Your task to perform on an android device: turn off data saver in the chrome app Image 0: 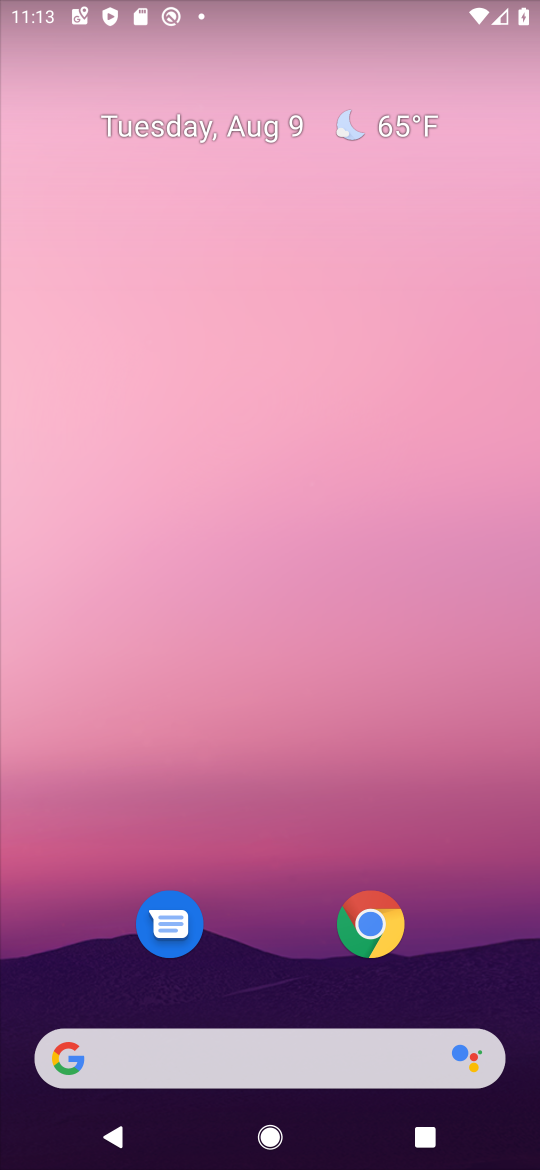
Step 0: drag from (268, 924) to (446, 18)
Your task to perform on an android device: turn off data saver in the chrome app Image 1: 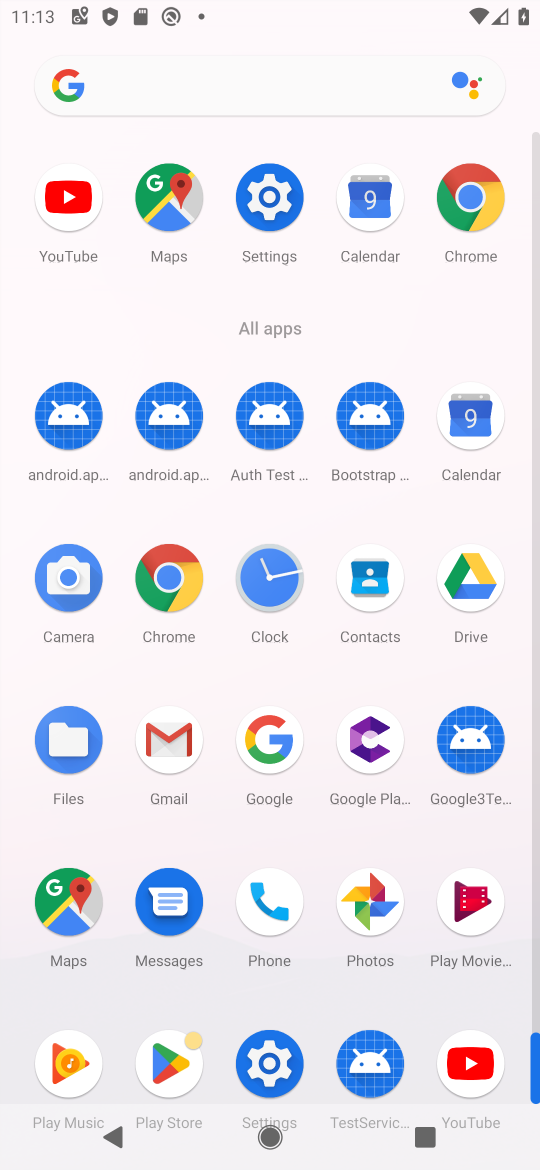
Step 1: click (254, 1055)
Your task to perform on an android device: turn off data saver in the chrome app Image 2: 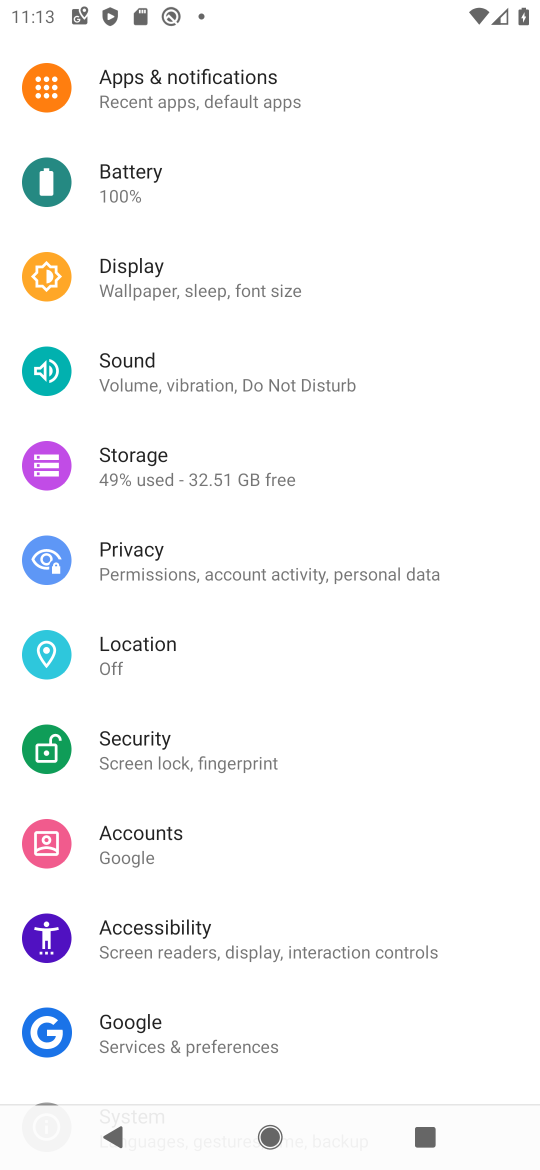
Step 2: press home button
Your task to perform on an android device: turn off data saver in the chrome app Image 3: 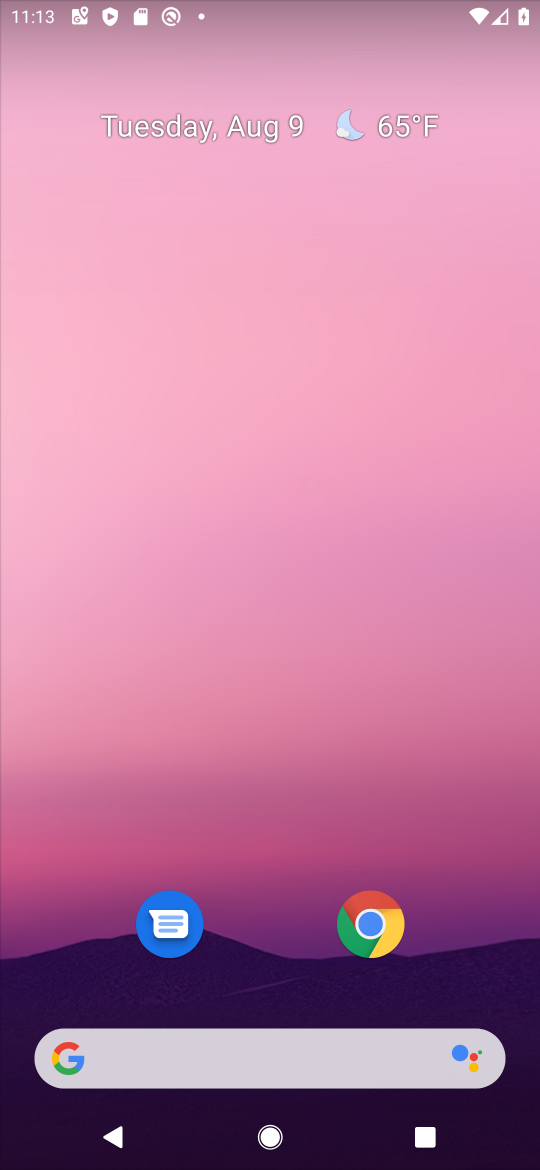
Step 3: click (370, 913)
Your task to perform on an android device: turn off data saver in the chrome app Image 4: 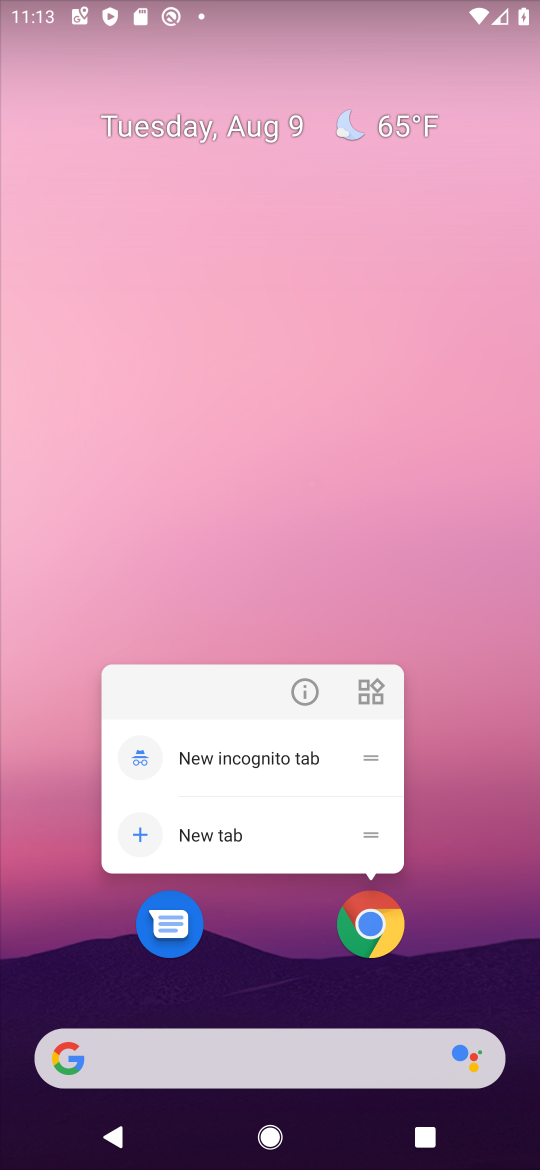
Step 4: click (392, 926)
Your task to perform on an android device: turn off data saver in the chrome app Image 5: 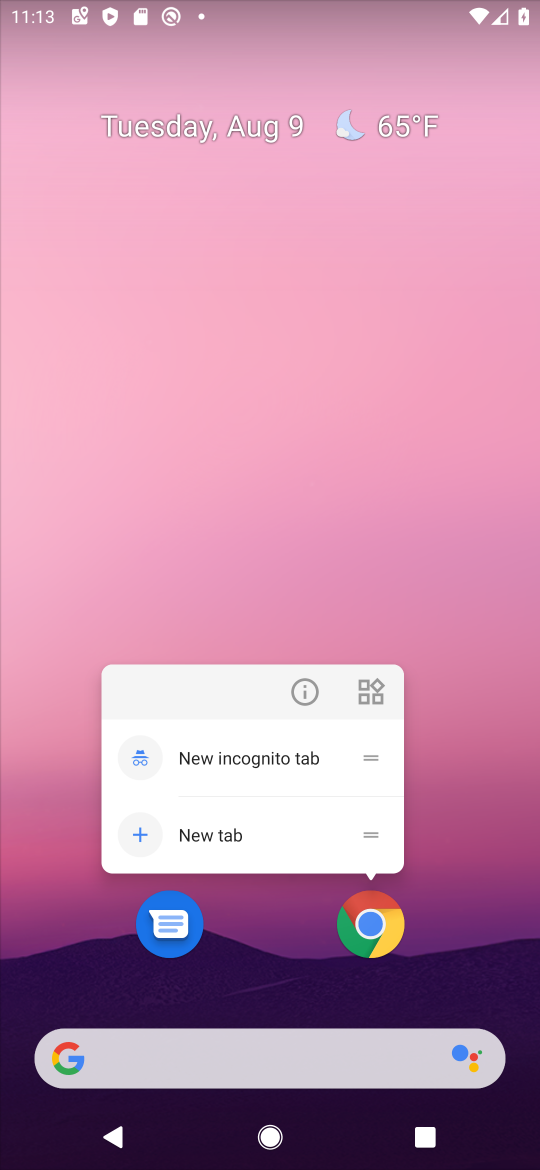
Step 5: click (392, 926)
Your task to perform on an android device: turn off data saver in the chrome app Image 6: 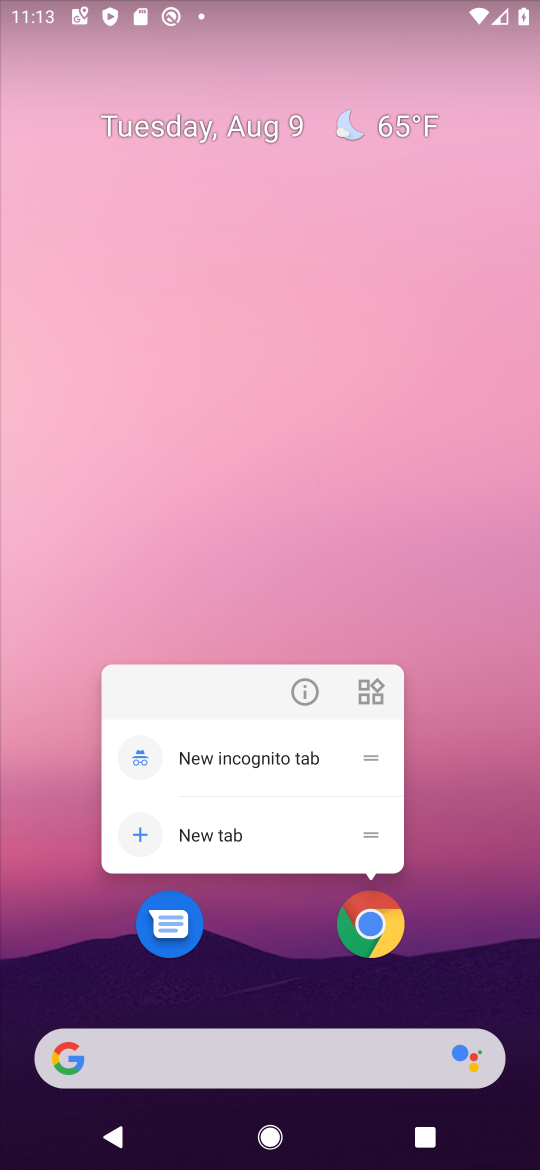
Step 6: click (360, 920)
Your task to perform on an android device: turn off data saver in the chrome app Image 7: 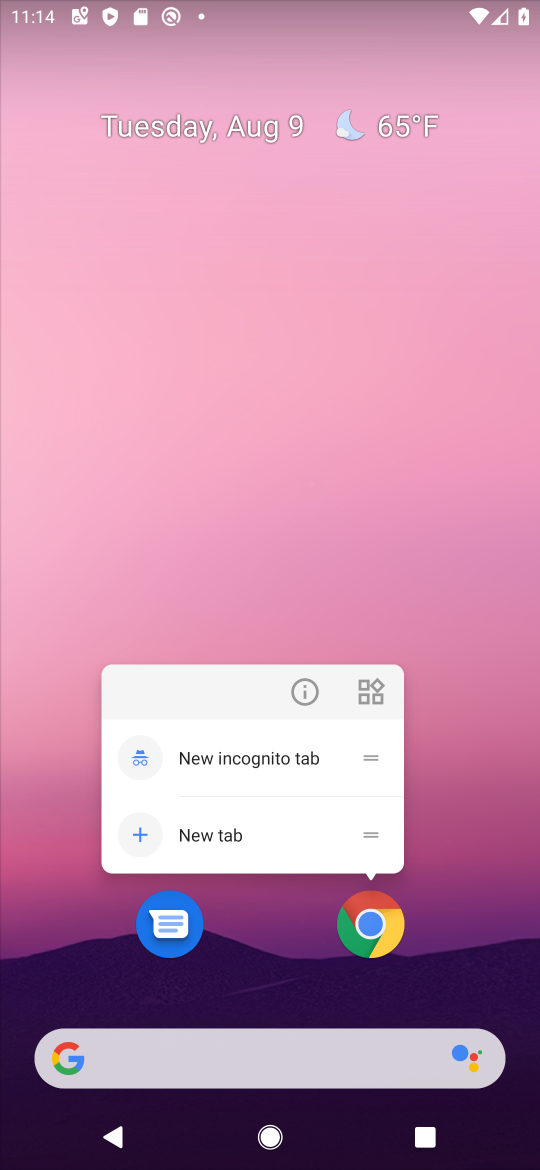
Step 7: click (360, 920)
Your task to perform on an android device: turn off data saver in the chrome app Image 8: 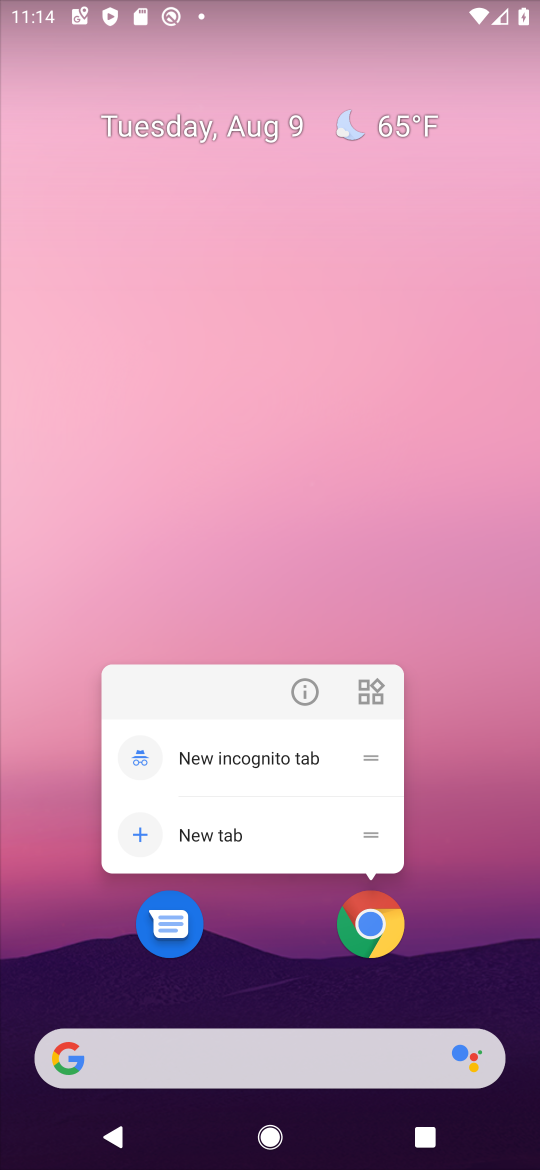
Step 8: click (360, 920)
Your task to perform on an android device: turn off data saver in the chrome app Image 9: 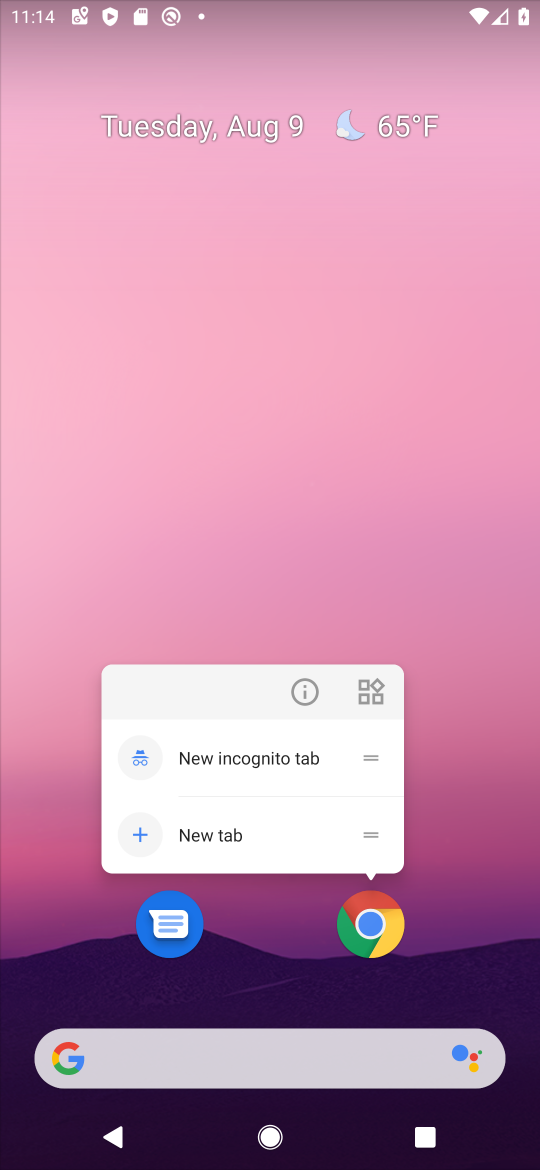
Step 9: drag from (268, 961) to (429, 71)
Your task to perform on an android device: turn off data saver in the chrome app Image 10: 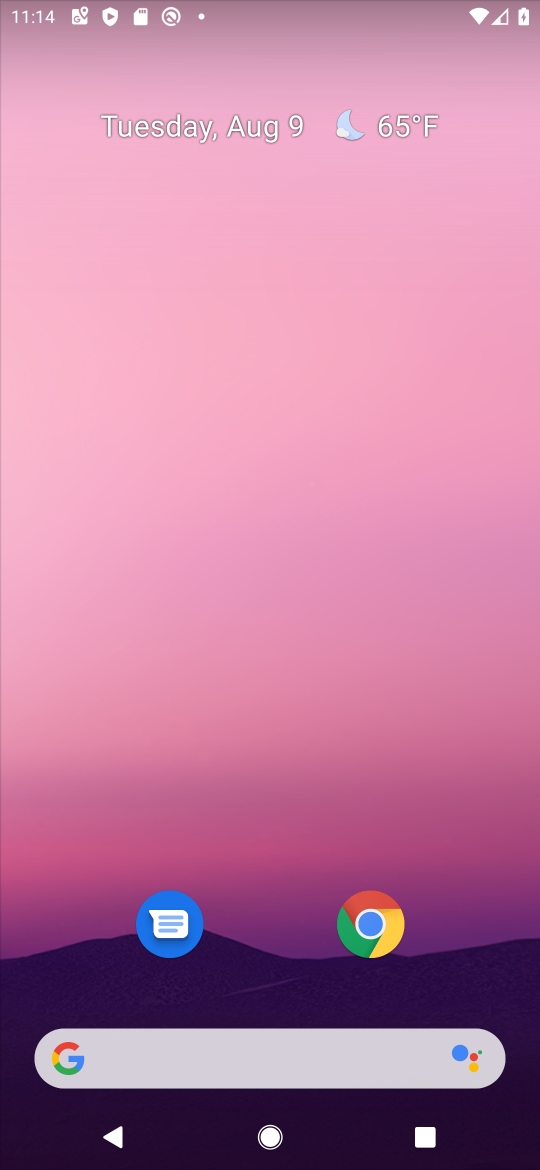
Step 10: drag from (226, 903) to (286, 111)
Your task to perform on an android device: turn off data saver in the chrome app Image 11: 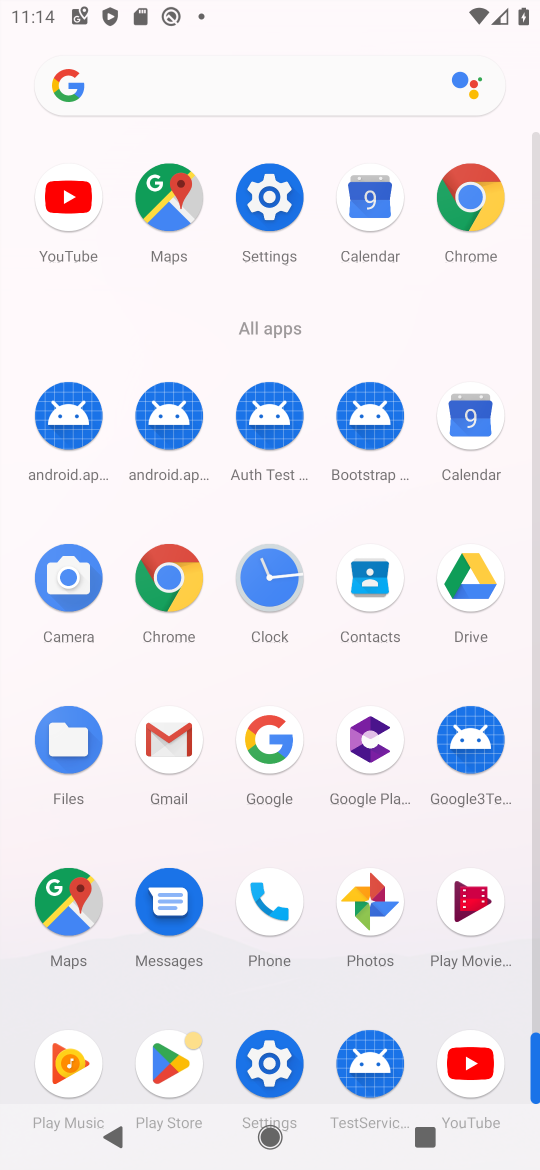
Step 11: click (172, 568)
Your task to perform on an android device: turn off data saver in the chrome app Image 12: 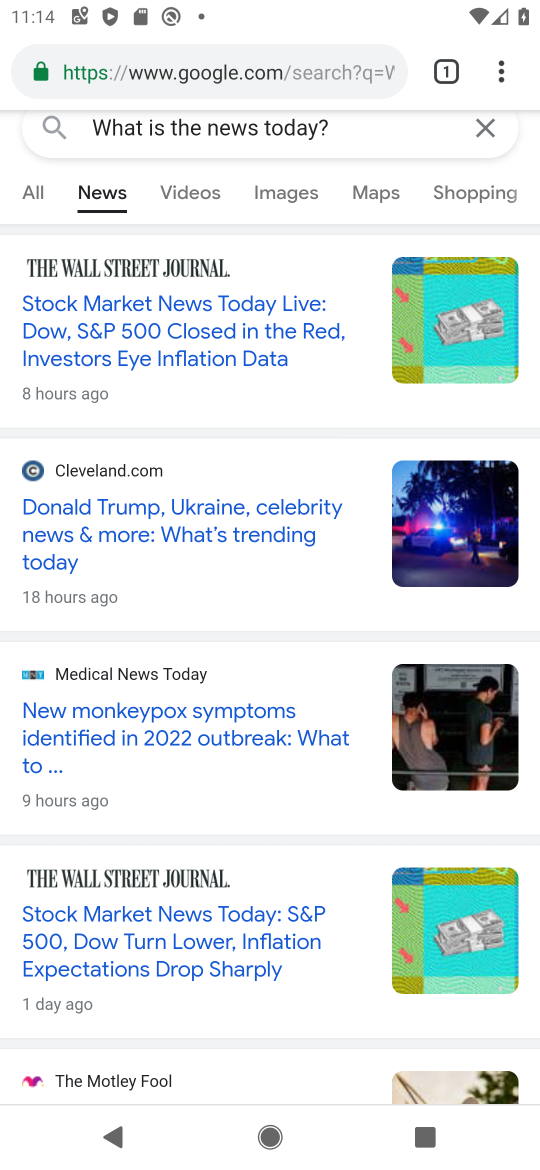
Step 12: drag from (502, 62) to (249, 776)
Your task to perform on an android device: turn off data saver in the chrome app Image 13: 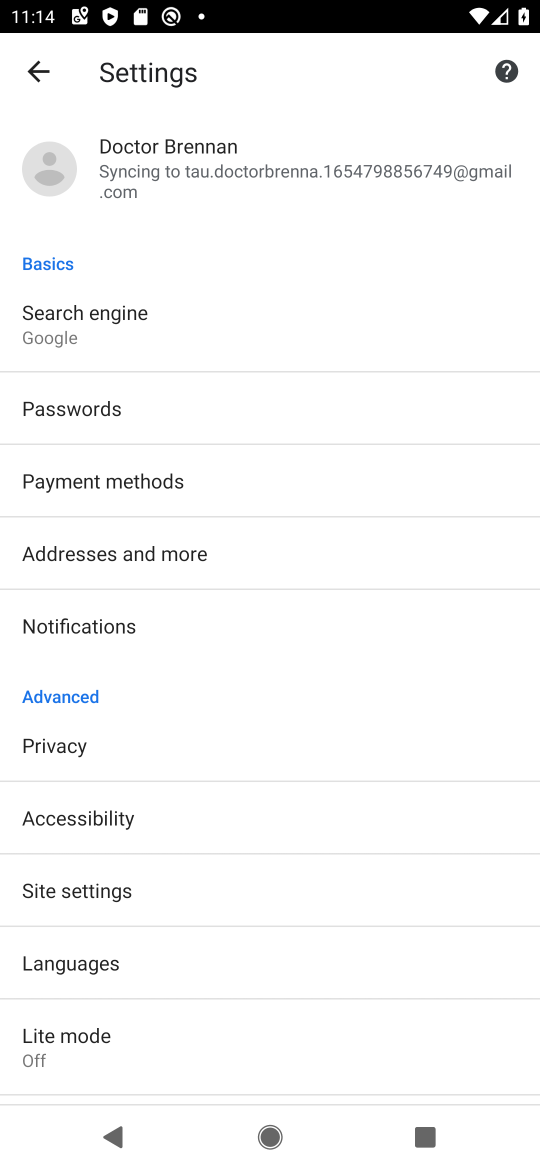
Step 13: click (35, 1039)
Your task to perform on an android device: turn off data saver in the chrome app Image 14: 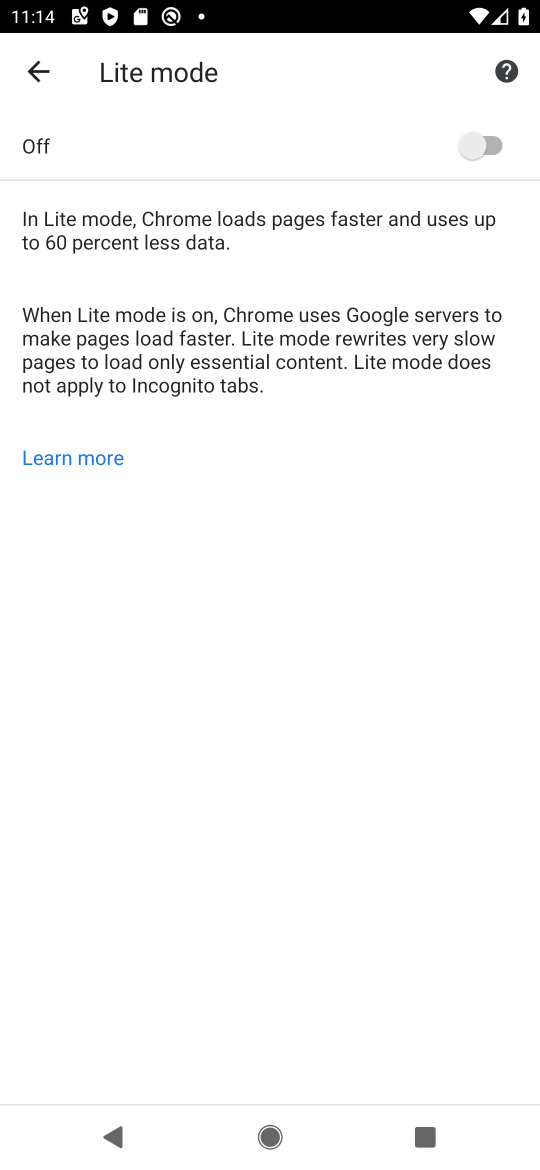
Step 14: task complete